Your task to perform on an android device: change text size in settings app Image 0: 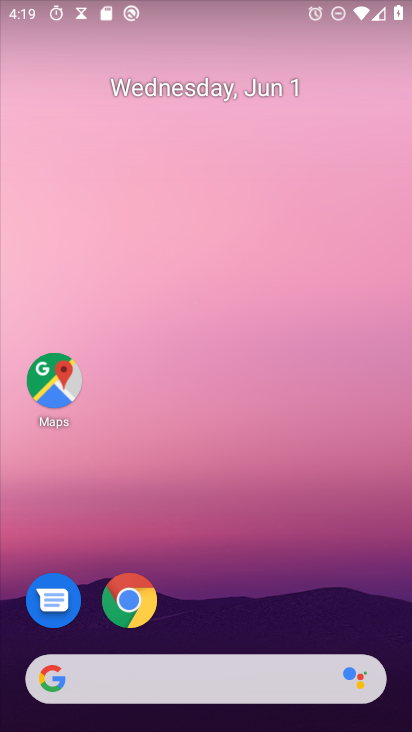
Step 0: drag from (222, 639) to (178, 34)
Your task to perform on an android device: change text size in settings app Image 1: 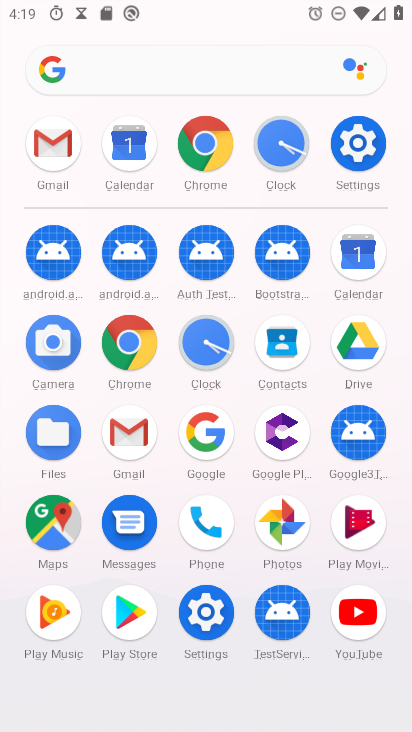
Step 1: click (359, 154)
Your task to perform on an android device: change text size in settings app Image 2: 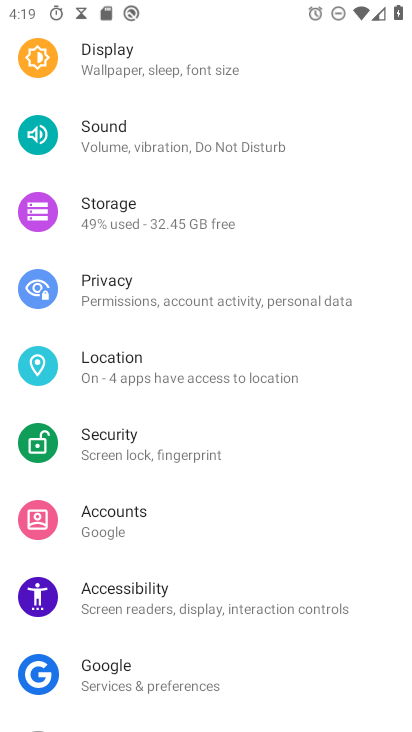
Step 2: drag from (180, 628) to (161, 296)
Your task to perform on an android device: change text size in settings app Image 3: 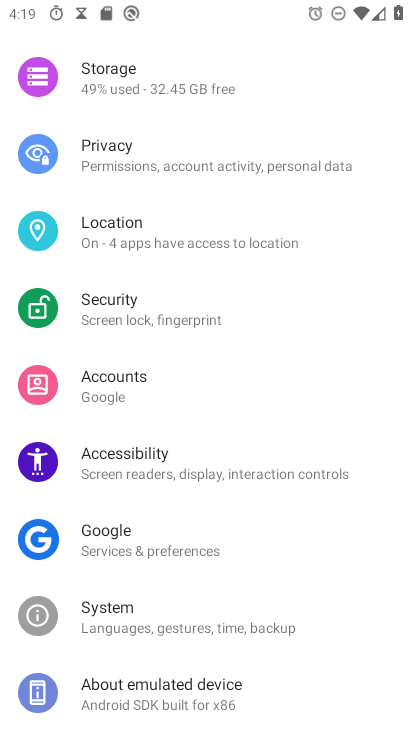
Step 3: drag from (170, 210) to (138, 499)
Your task to perform on an android device: change text size in settings app Image 4: 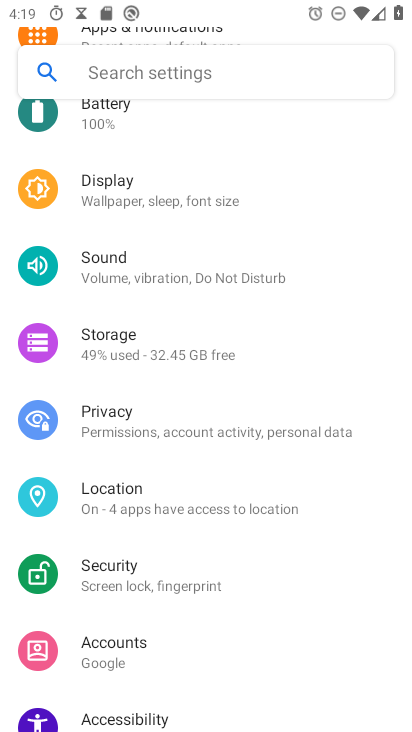
Step 4: click (111, 200)
Your task to perform on an android device: change text size in settings app Image 5: 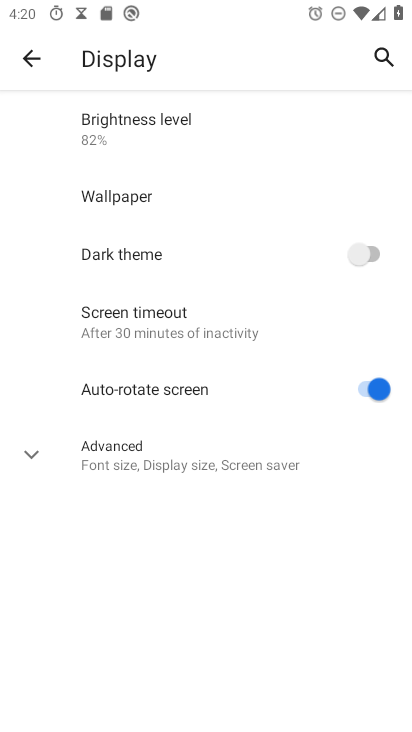
Step 5: click (84, 460)
Your task to perform on an android device: change text size in settings app Image 6: 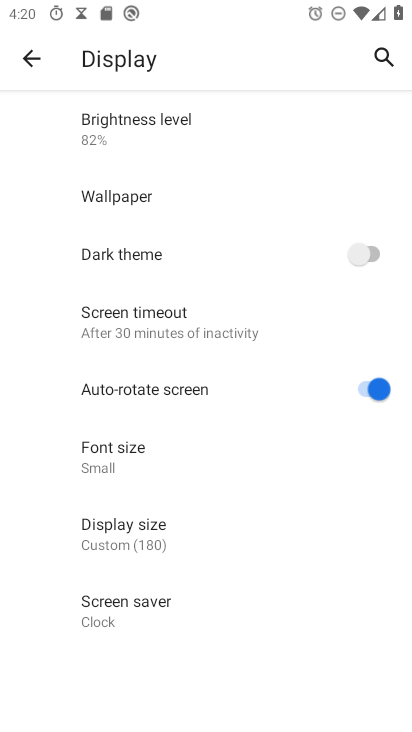
Step 6: click (103, 460)
Your task to perform on an android device: change text size in settings app Image 7: 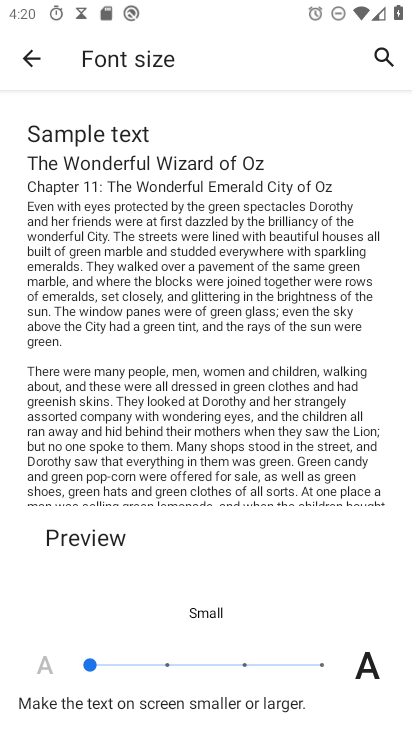
Step 7: click (163, 676)
Your task to perform on an android device: change text size in settings app Image 8: 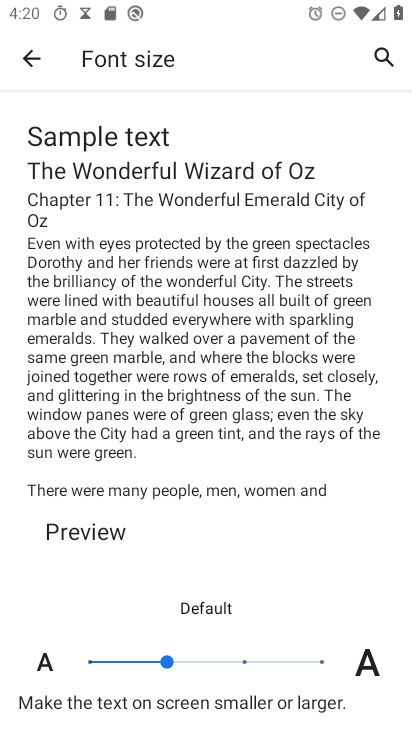
Step 8: task complete